Your task to perform on an android device: turn off translation in the chrome app Image 0: 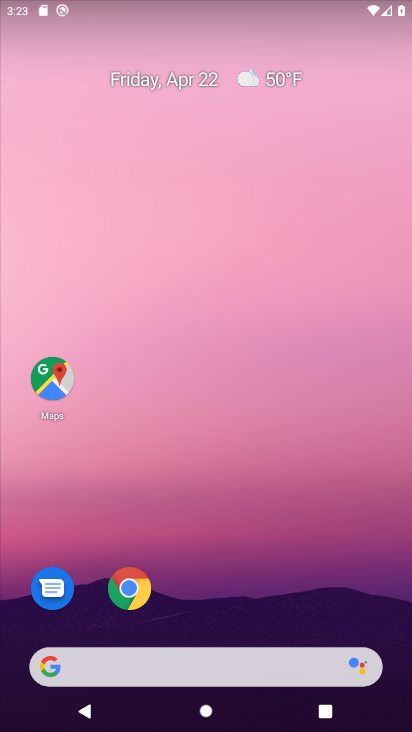
Step 0: drag from (349, 586) to (385, 191)
Your task to perform on an android device: turn off translation in the chrome app Image 1: 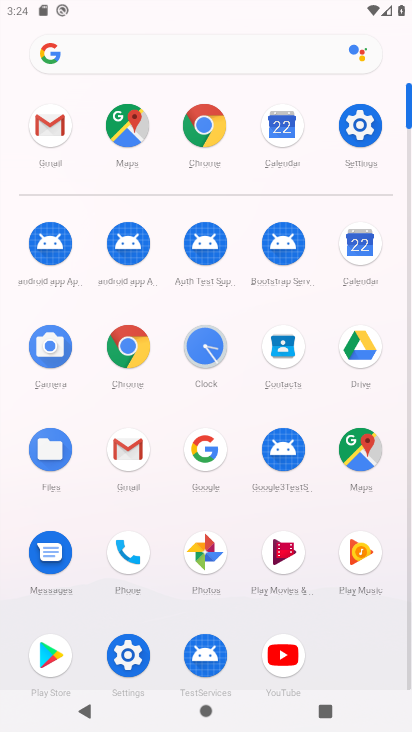
Step 1: click (207, 136)
Your task to perform on an android device: turn off translation in the chrome app Image 2: 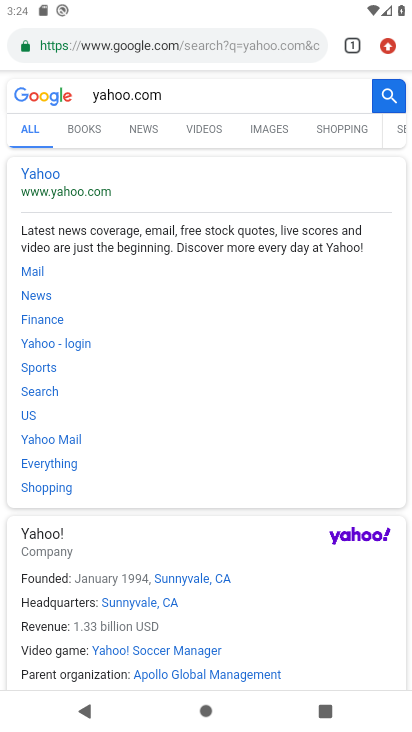
Step 2: click (388, 45)
Your task to perform on an android device: turn off translation in the chrome app Image 3: 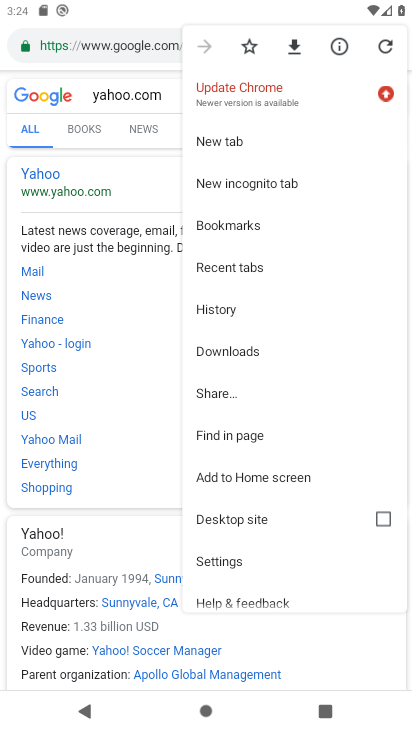
Step 3: drag from (318, 473) to (333, 350)
Your task to perform on an android device: turn off translation in the chrome app Image 4: 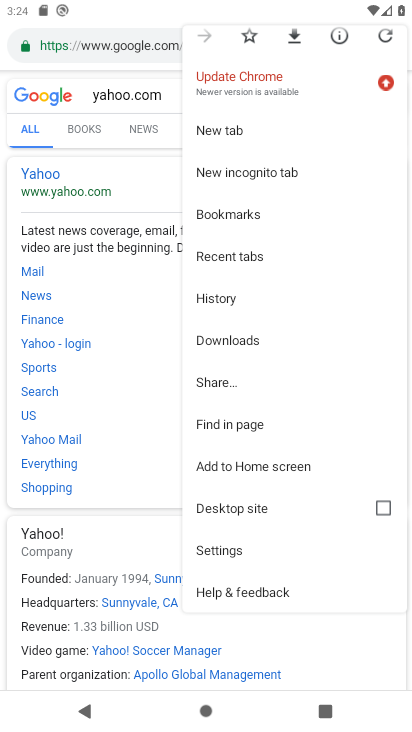
Step 4: click (232, 555)
Your task to perform on an android device: turn off translation in the chrome app Image 5: 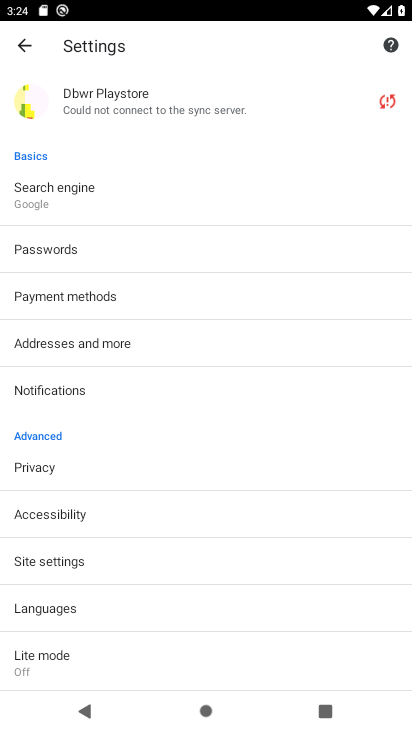
Step 5: click (140, 602)
Your task to perform on an android device: turn off translation in the chrome app Image 6: 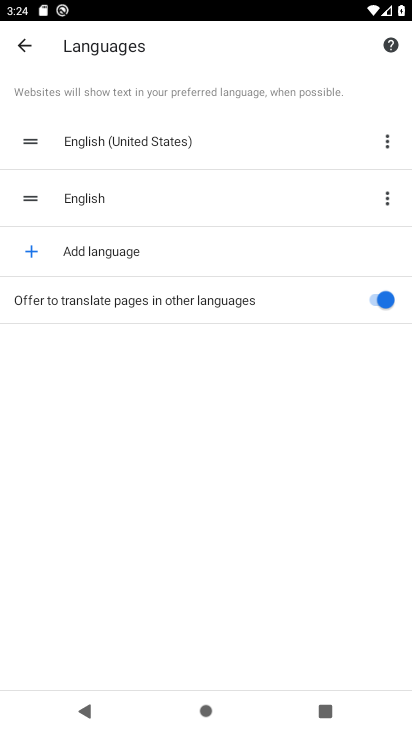
Step 6: drag from (280, 557) to (299, 354)
Your task to perform on an android device: turn off translation in the chrome app Image 7: 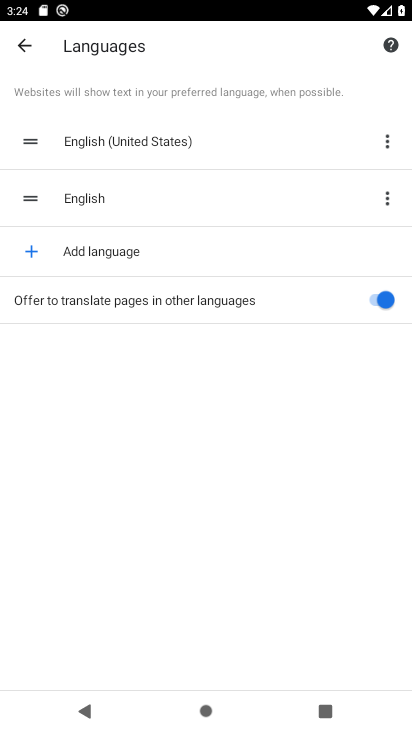
Step 7: click (381, 294)
Your task to perform on an android device: turn off translation in the chrome app Image 8: 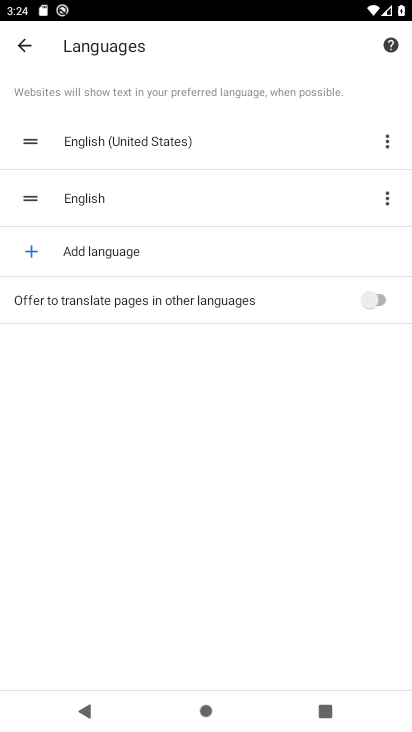
Step 8: task complete